Your task to perform on an android device: Open privacy settings Image 0: 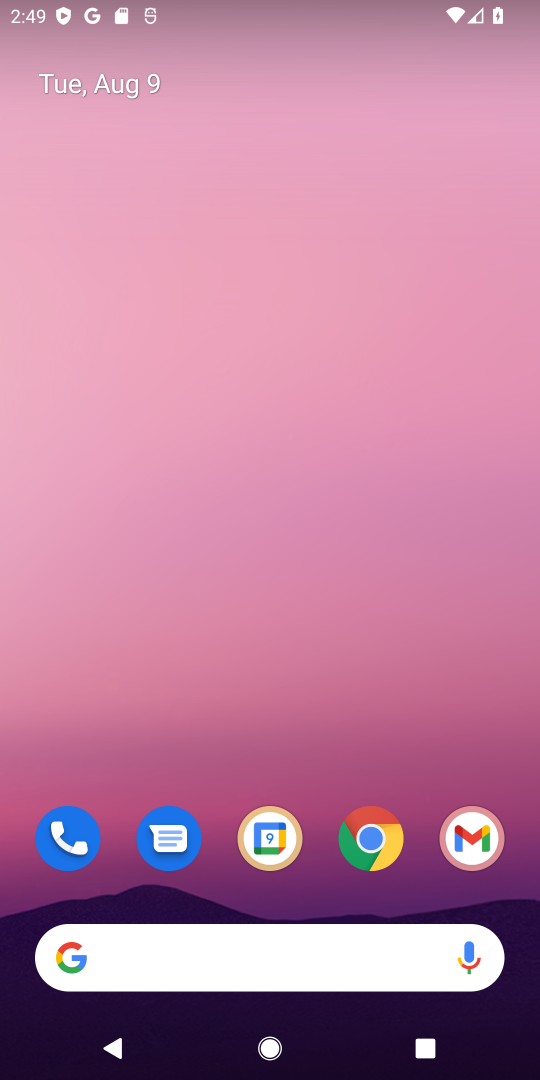
Step 0: drag from (327, 899) to (335, 151)
Your task to perform on an android device: Open privacy settings Image 1: 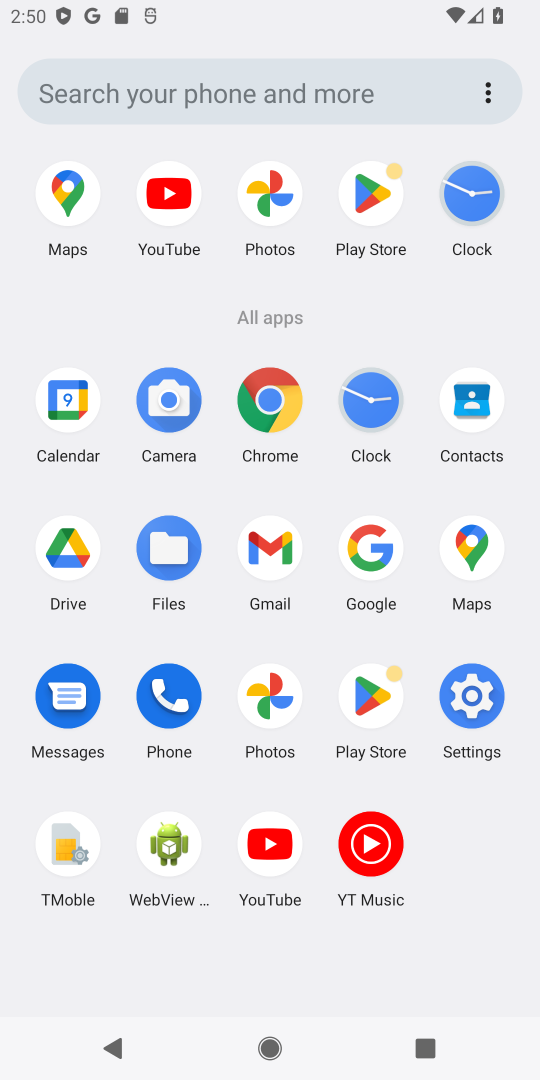
Step 1: click (469, 710)
Your task to perform on an android device: Open privacy settings Image 2: 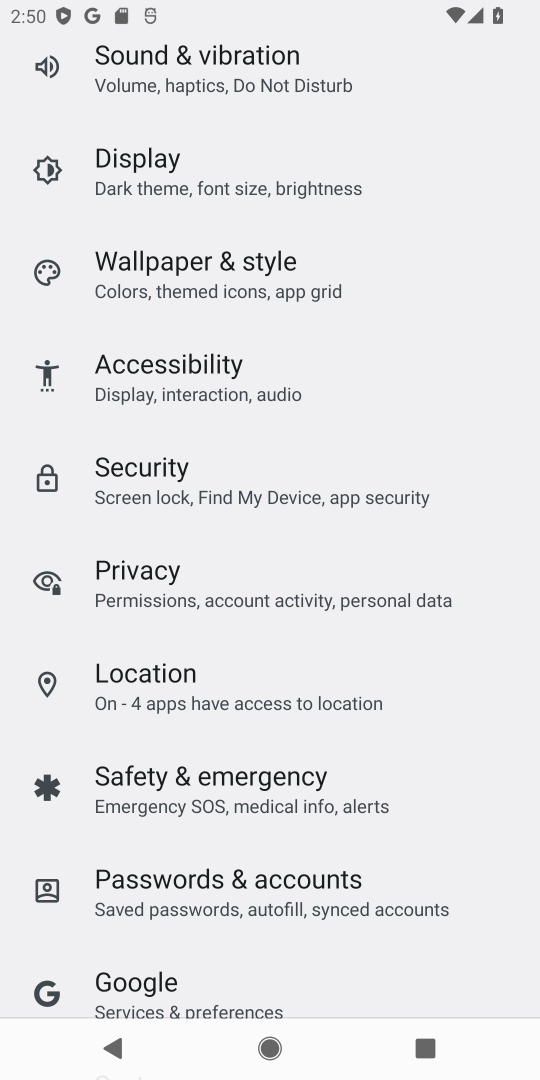
Step 2: click (135, 603)
Your task to perform on an android device: Open privacy settings Image 3: 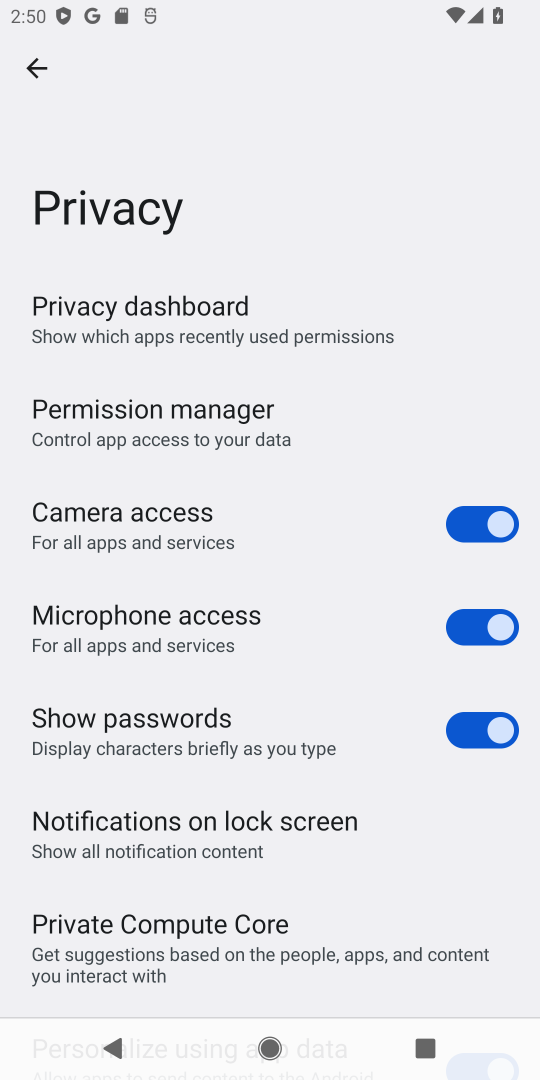
Step 3: task complete